Your task to perform on an android device: Go to display settings Image 0: 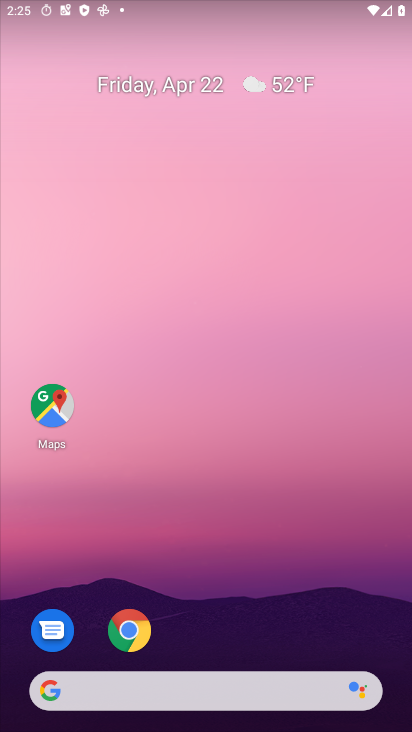
Step 0: drag from (378, 620) to (392, 136)
Your task to perform on an android device: Go to display settings Image 1: 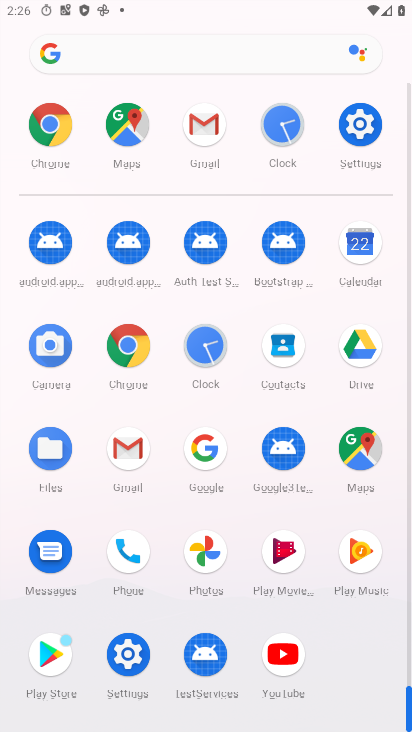
Step 1: click (354, 120)
Your task to perform on an android device: Go to display settings Image 2: 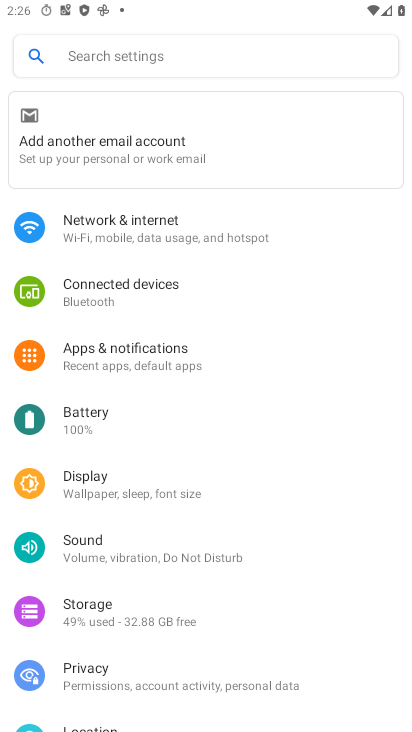
Step 2: click (85, 475)
Your task to perform on an android device: Go to display settings Image 3: 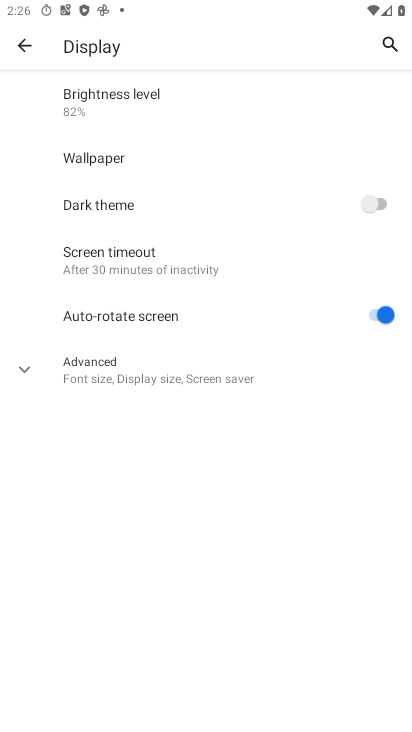
Step 3: task complete